Your task to perform on an android device: Search for vegetarian restaurants on Maps Image 0: 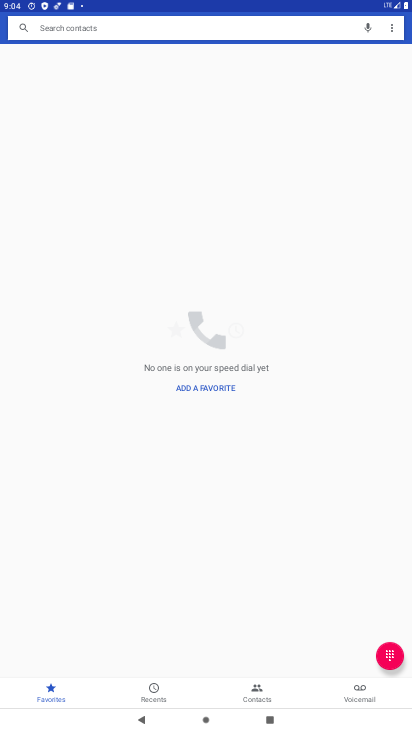
Step 0: press home button
Your task to perform on an android device: Search for vegetarian restaurants on Maps Image 1: 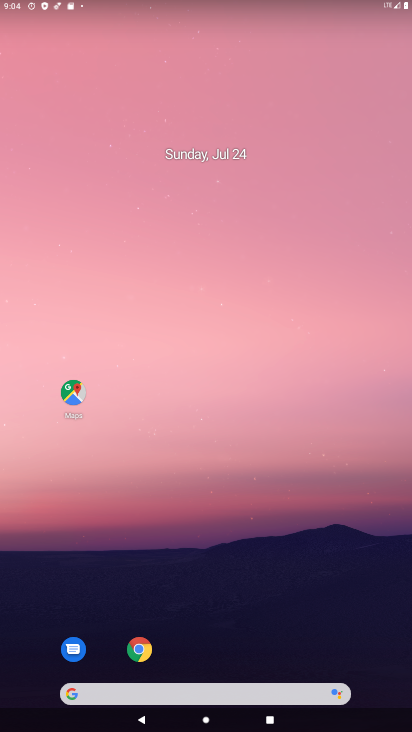
Step 1: click (109, 697)
Your task to perform on an android device: Search for vegetarian restaurants on Maps Image 2: 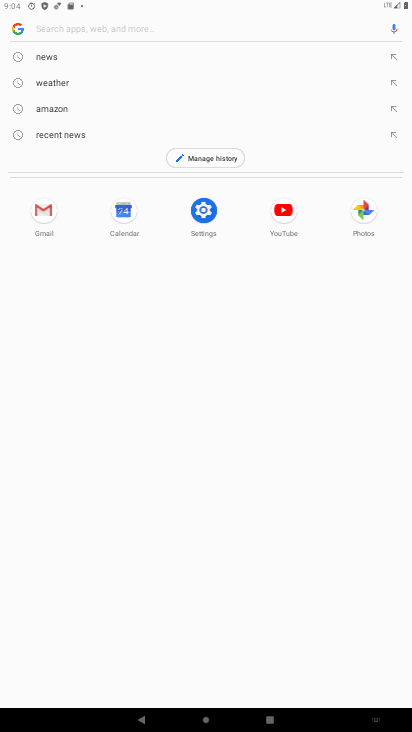
Step 2: type "vegetarian restaurants"
Your task to perform on an android device: Search for vegetarian restaurants on Maps Image 3: 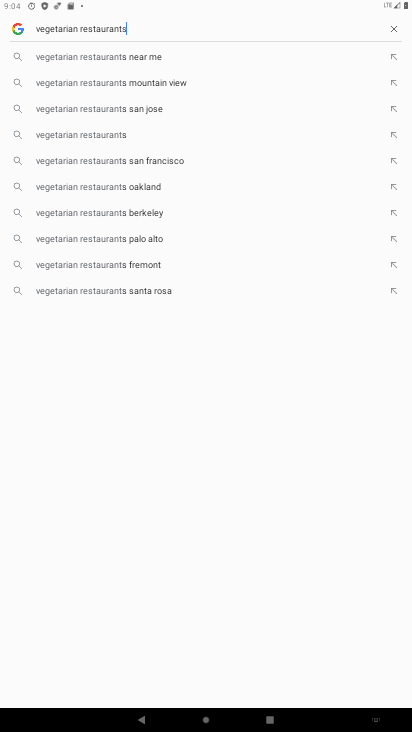
Step 3: type ""
Your task to perform on an android device: Search for vegetarian restaurants on Maps Image 4: 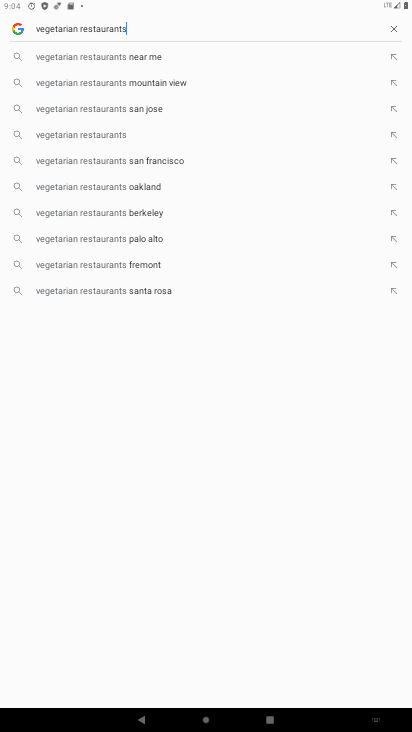
Step 4: type ""
Your task to perform on an android device: Search for vegetarian restaurants on Maps Image 5: 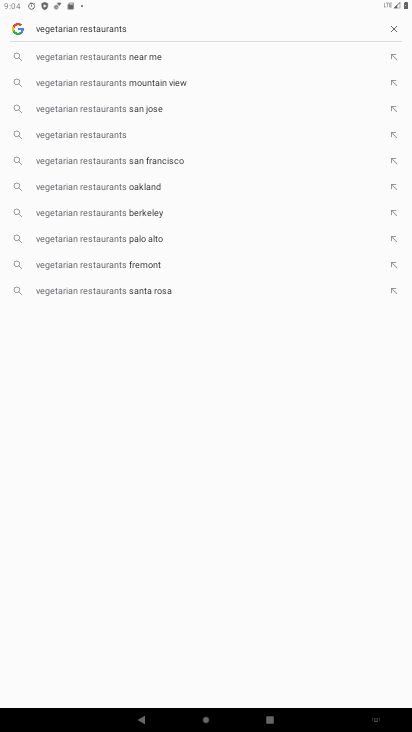
Step 5: type ""
Your task to perform on an android device: Search for vegetarian restaurants on Maps Image 6: 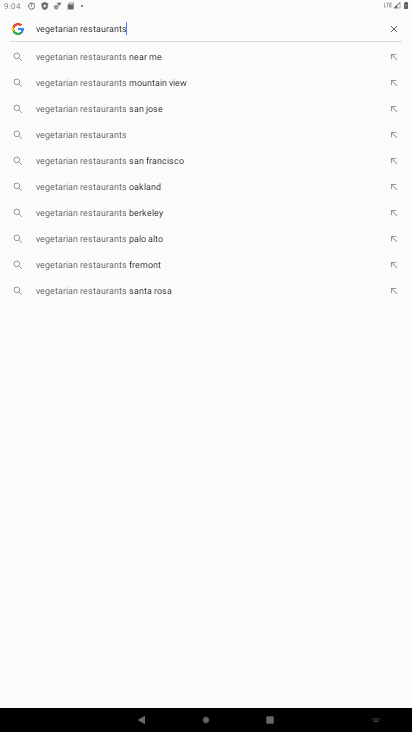
Step 6: click (88, 139)
Your task to perform on an android device: Search for vegetarian restaurants on Maps Image 7: 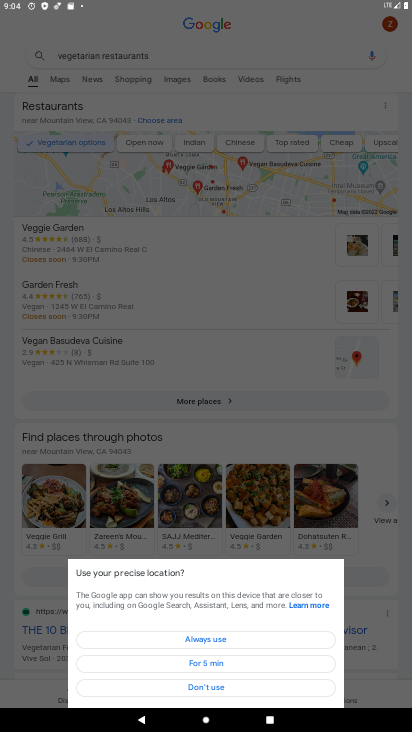
Step 7: task complete